Your task to perform on an android device: create a new album in the google photos Image 0: 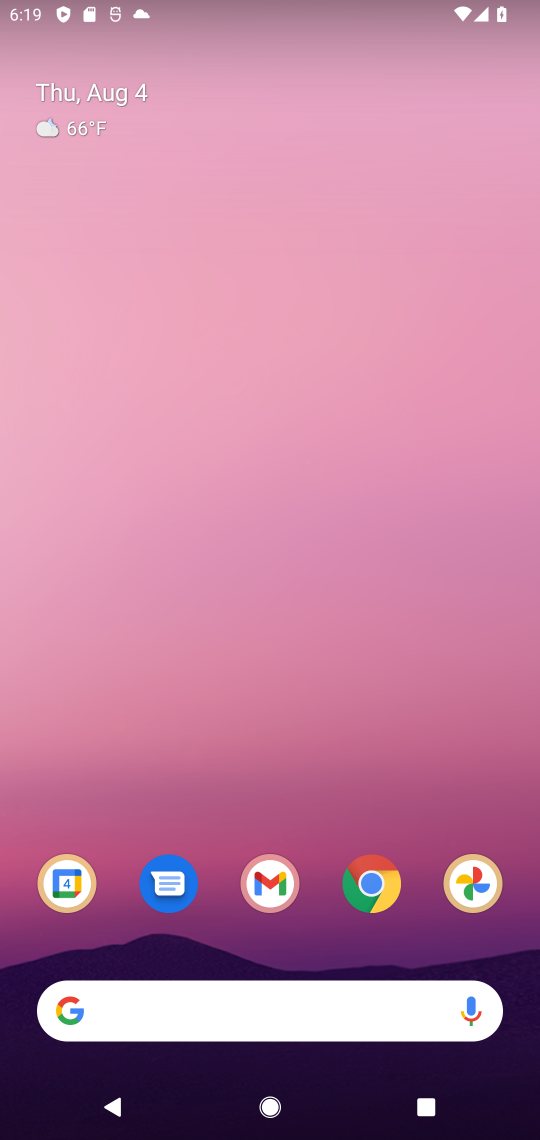
Step 0: click (371, 1096)
Your task to perform on an android device: create a new album in the google photos Image 1: 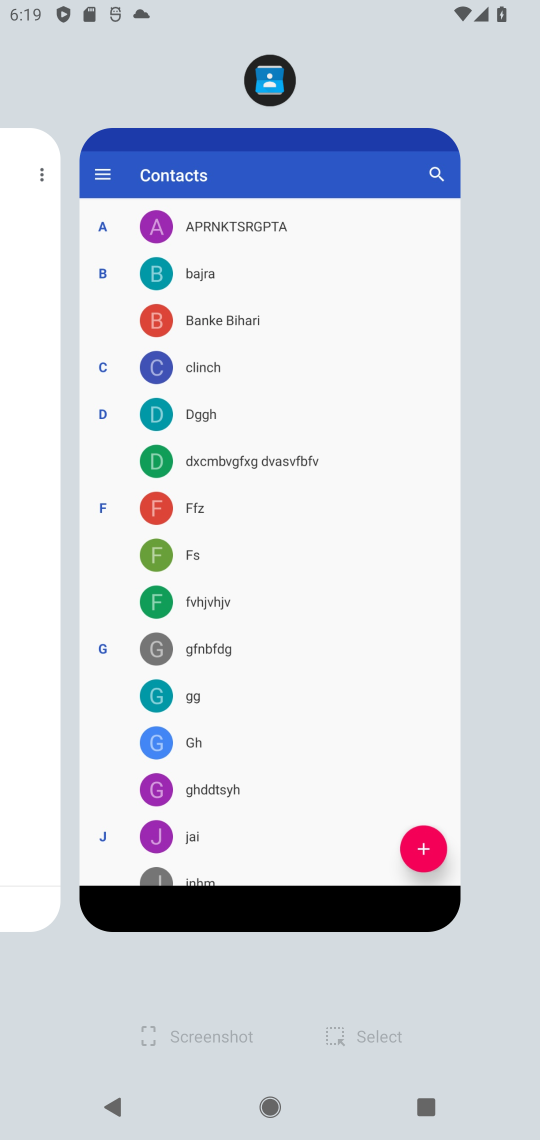
Step 1: click (334, 710)
Your task to perform on an android device: create a new album in the google photos Image 2: 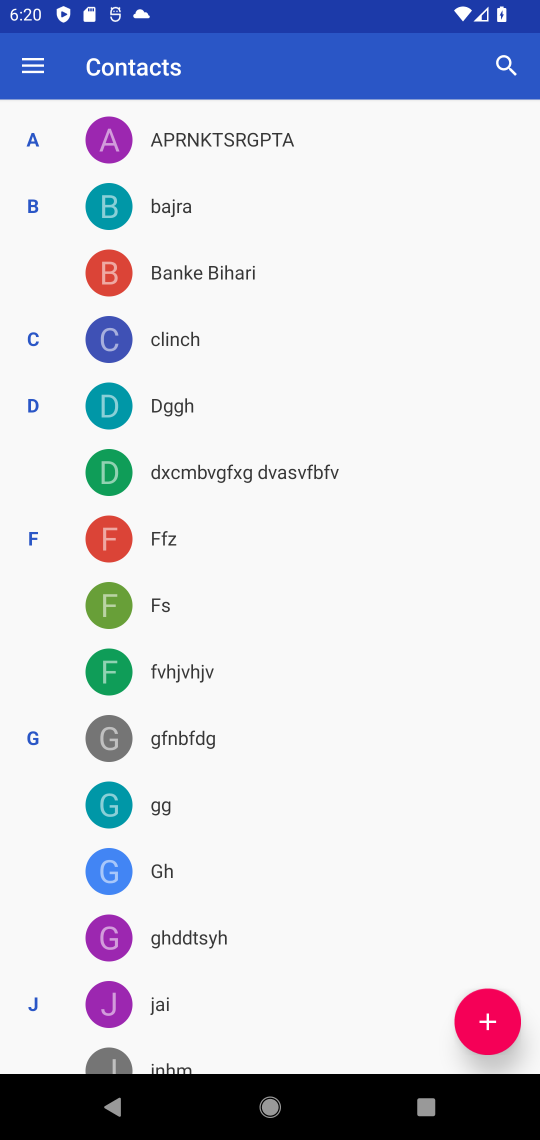
Step 2: press home button
Your task to perform on an android device: create a new album in the google photos Image 3: 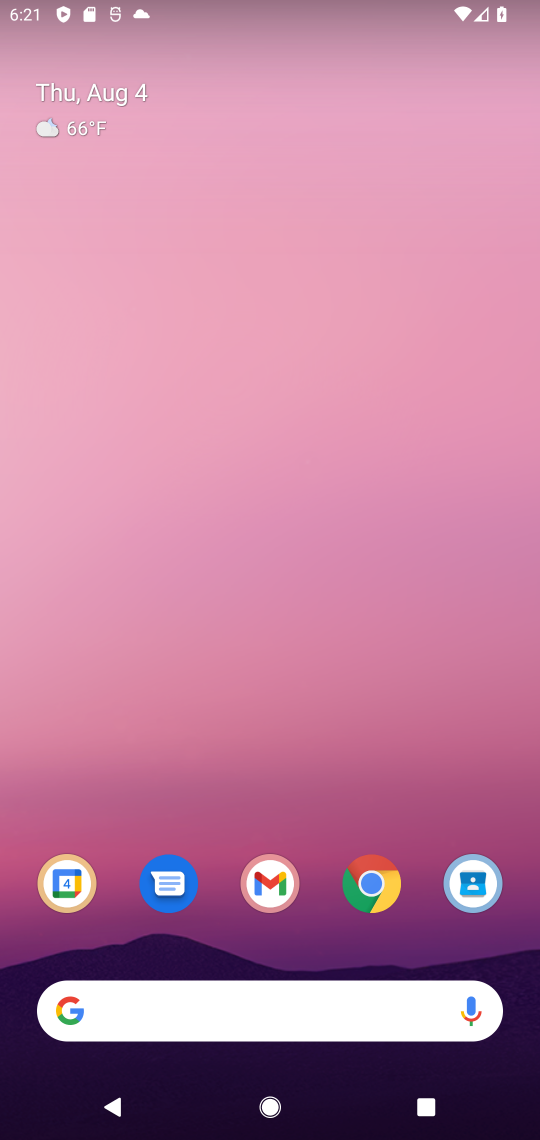
Step 3: drag from (189, 982) to (385, 2)
Your task to perform on an android device: create a new album in the google photos Image 4: 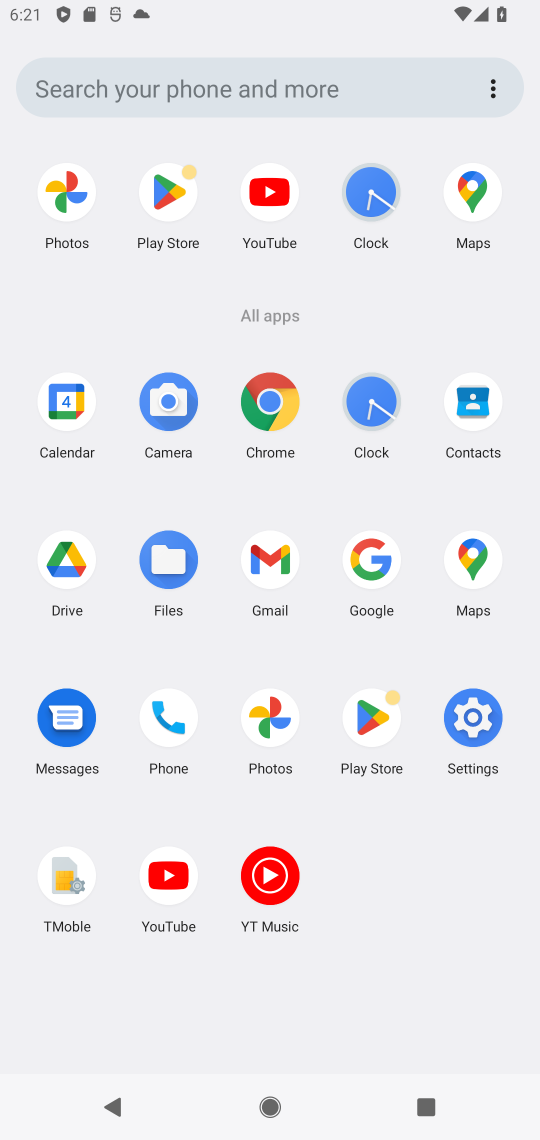
Step 4: click (279, 721)
Your task to perform on an android device: create a new album in the google photos Image 5: 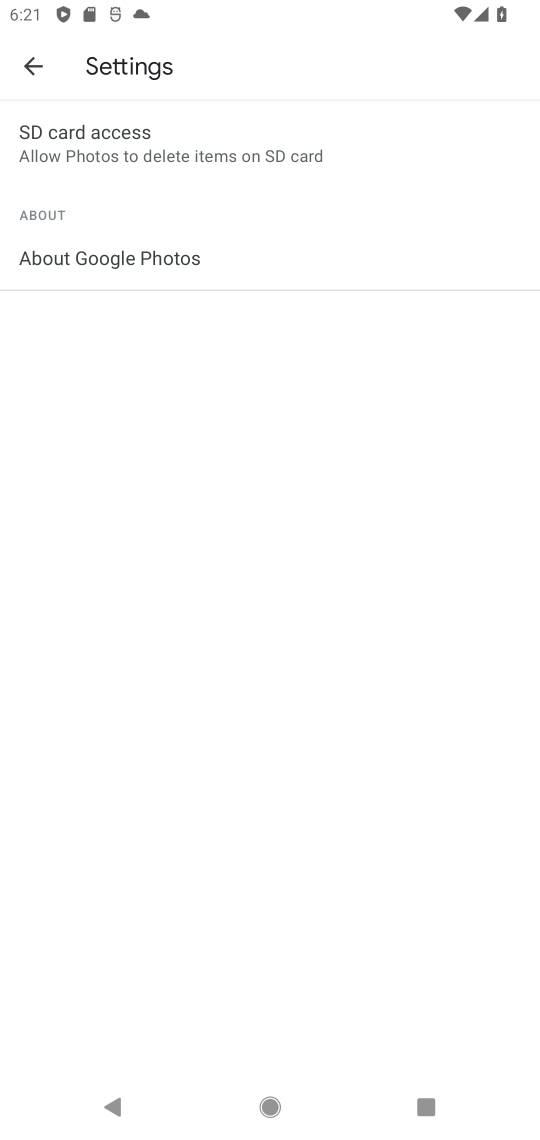
Step 5: click (35, 66)
Your task to perform on an android device: create a new album in the google photos Image 6: 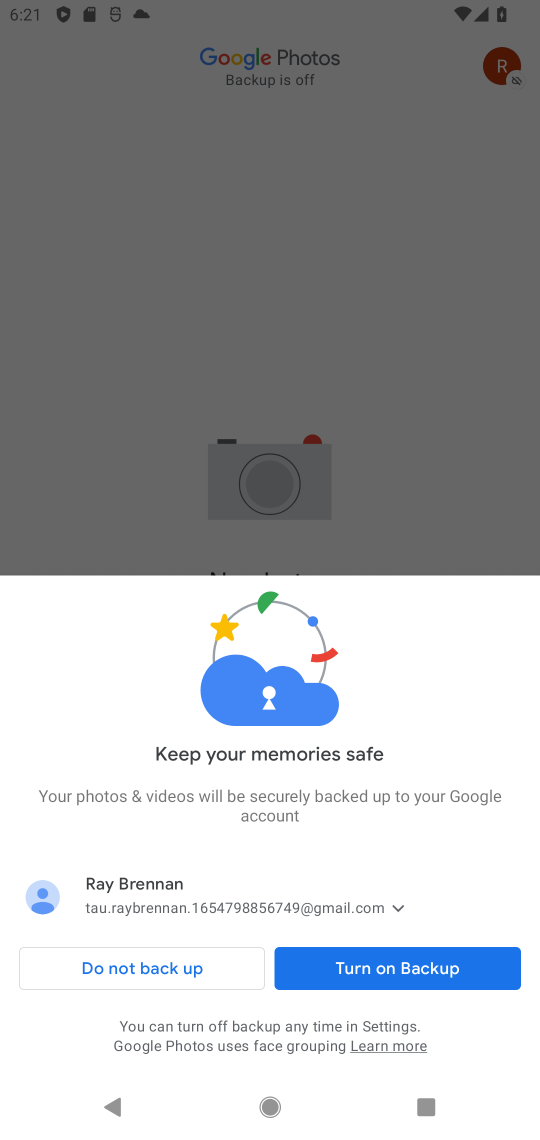
Step 6: click (398, 968)
Your task to perform on an android device: create a new album in the google photos Image 7: 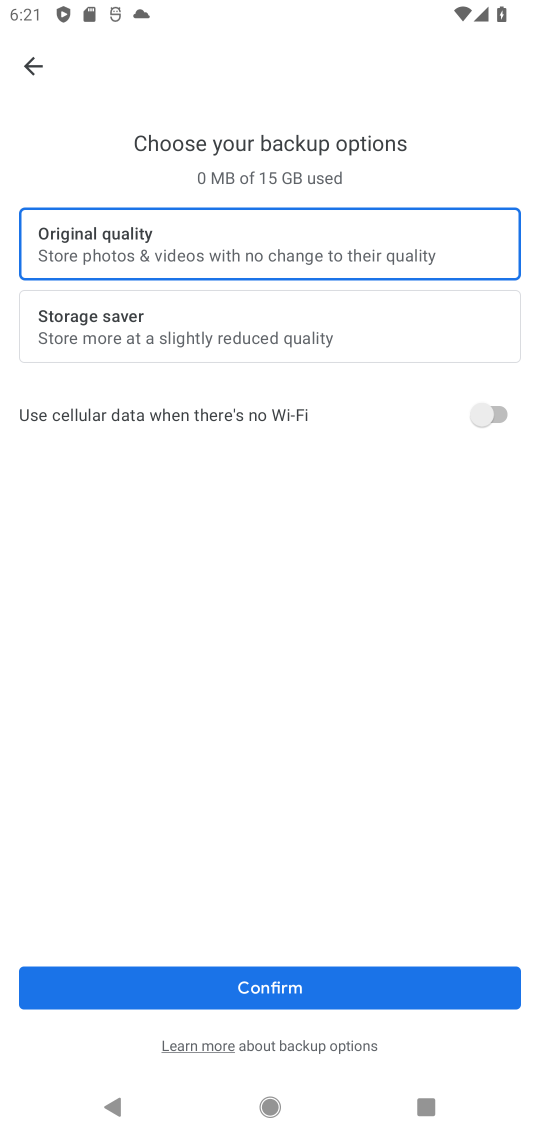
Step 7: click (128, 998)
Your task to perform on an android device: create a new album in the google photos Image 8: 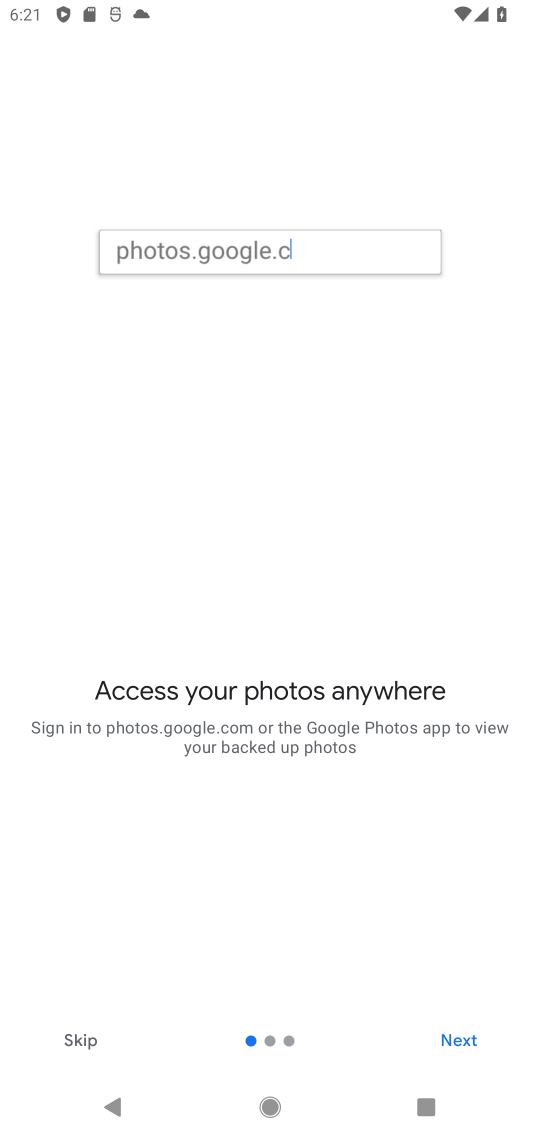
Step 8: click (473, 1037)
Your task to perform on an android device: create a new album in the google photos Image 9: 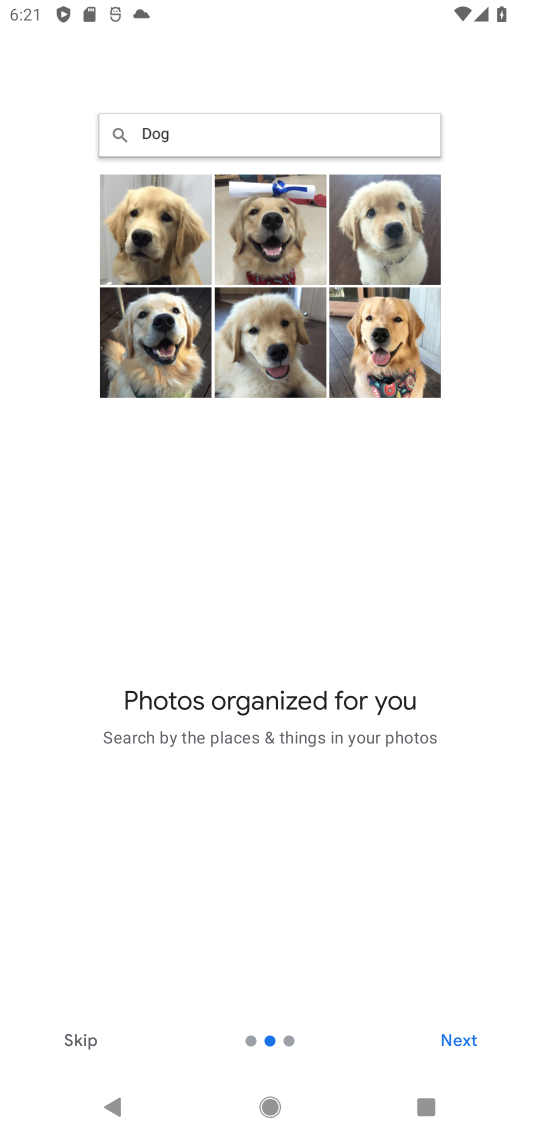
Step 9: click (473, 1037)
Your task to perform on an android device: create a new album in the google photos Image 10: 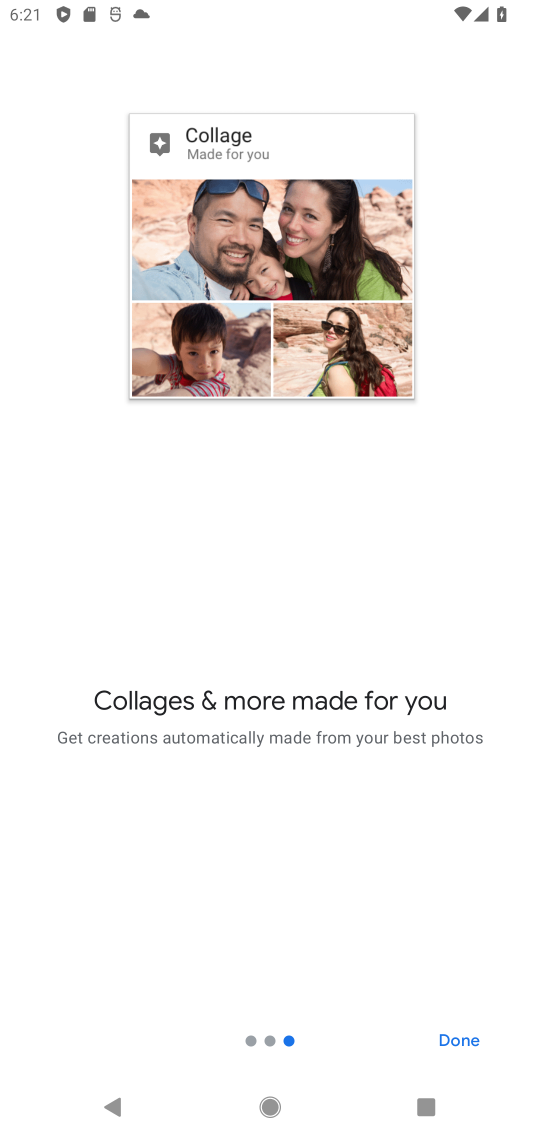
Step 10: click (473, 1037)
Your task to perform on an android device: create a new album in the google photos Image 11: 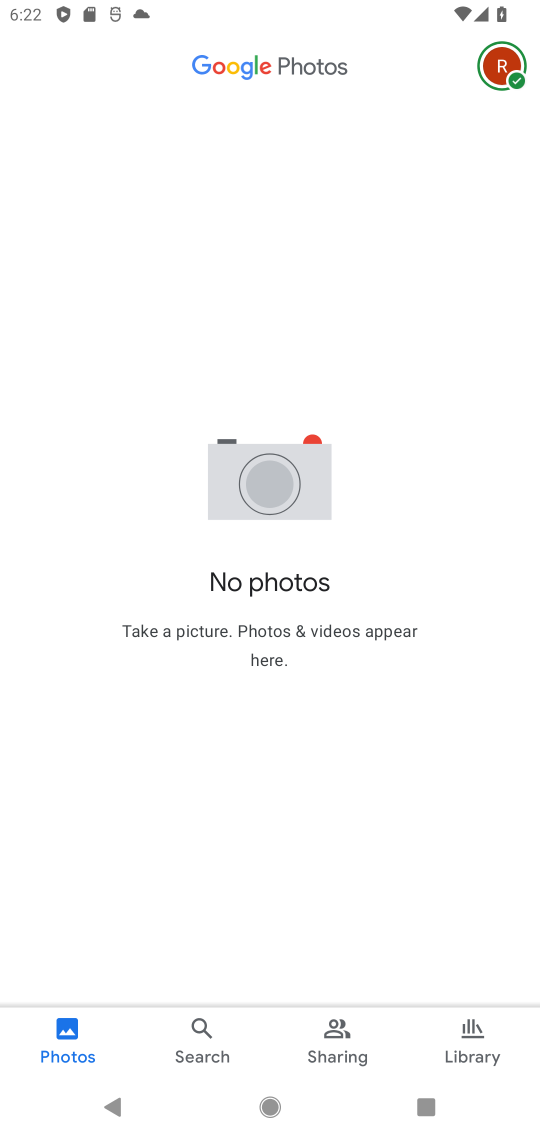
Step 11: task complete